Your task to perform on an android device: open a bookmark in the chrome app Image 0: 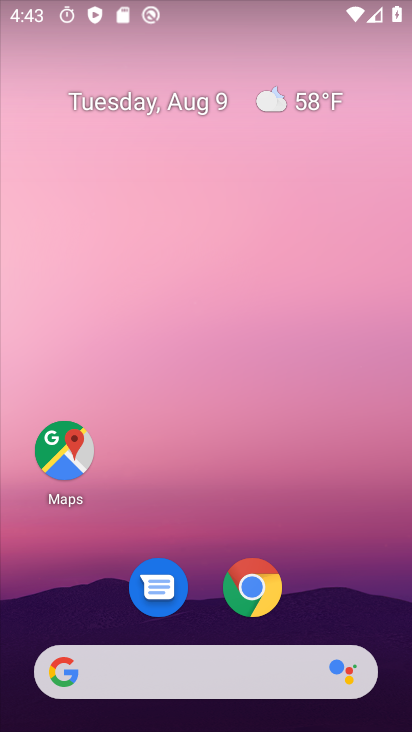
Step 0: click (263, 606)
Your task to perform on an android device: open a bookmark in the chrome app Image 1: 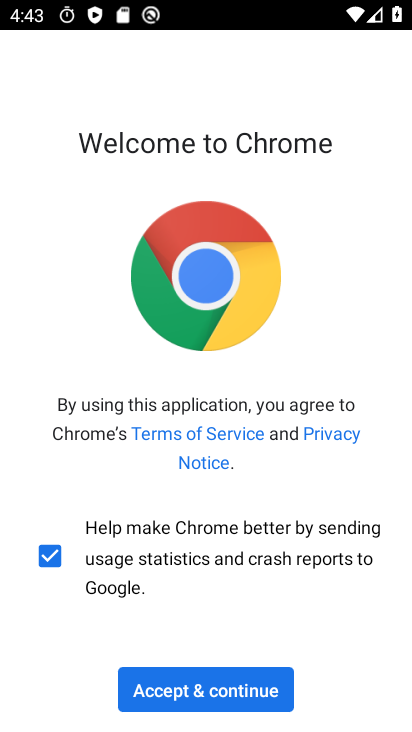
Step 1: click (172, 698)
Your task to perform on an android device: open a bookmark in the chrome app Image 2: 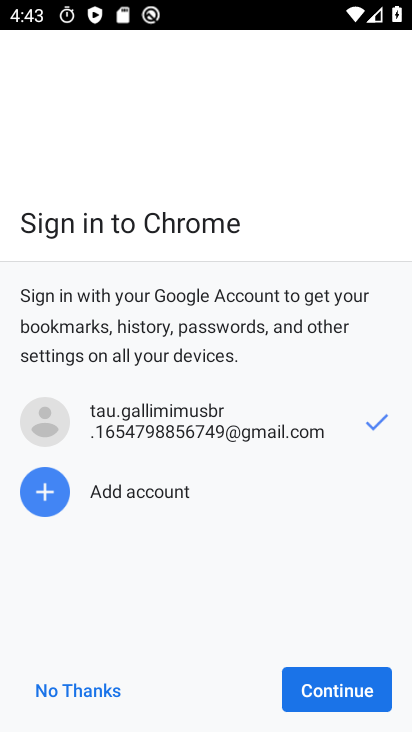
Step 2: click (340, 700)
Your task to perform on an android device: open a bookmark in the chrome app Image 3: 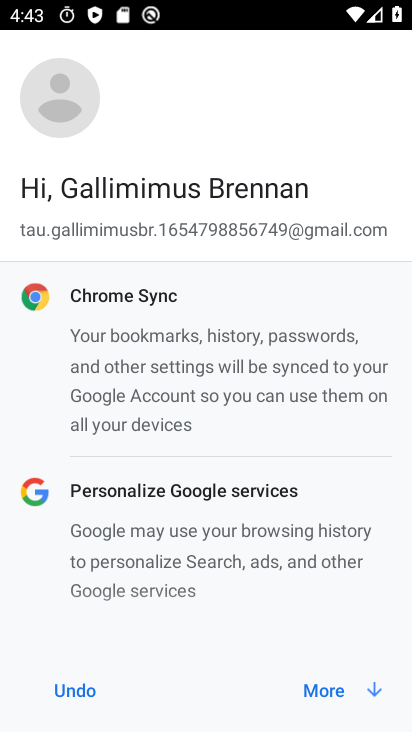
Step 3: click (346, 690)
Your task to perform on an android device: open a bookmark in the chrome app Image 4: 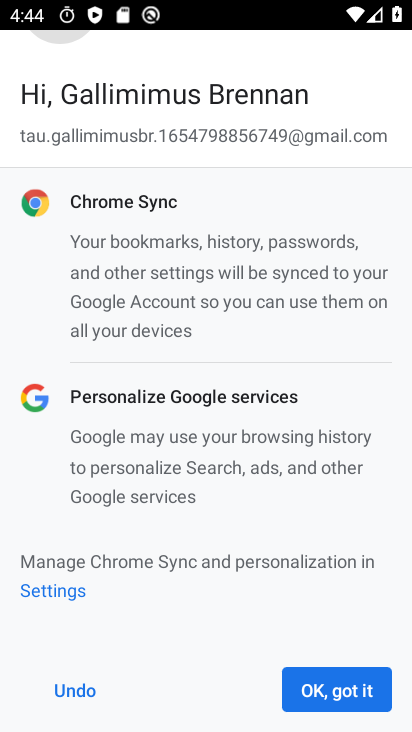
Step 4: click (346, 690)
Your task to perform on an android device: open a bookmark in the chrome app Image 5: 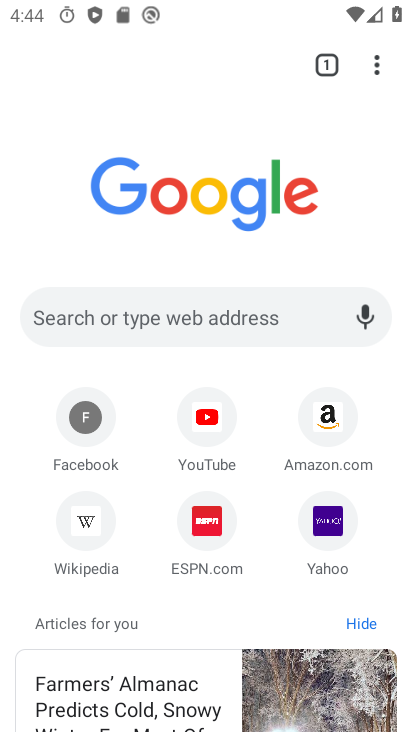
Step 5: drag from (372, 57) to (247, 257)
Your task to perform on an android device: open a bookmark in the chrome app Image 6: 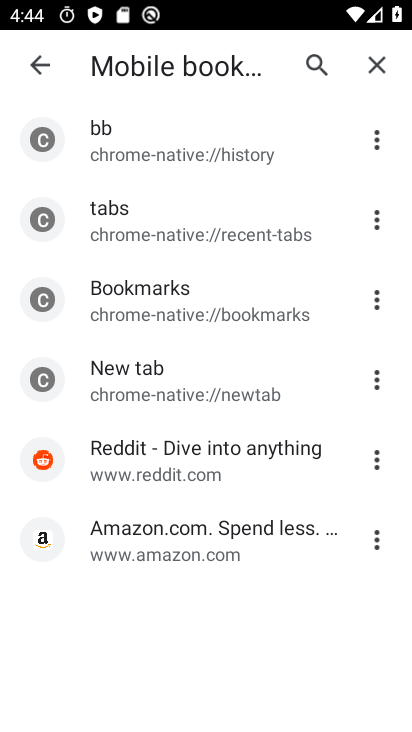
Step 6: click (155, 471)
Your task to perform on an android device: open a bookmark in the chrome app Image 7: 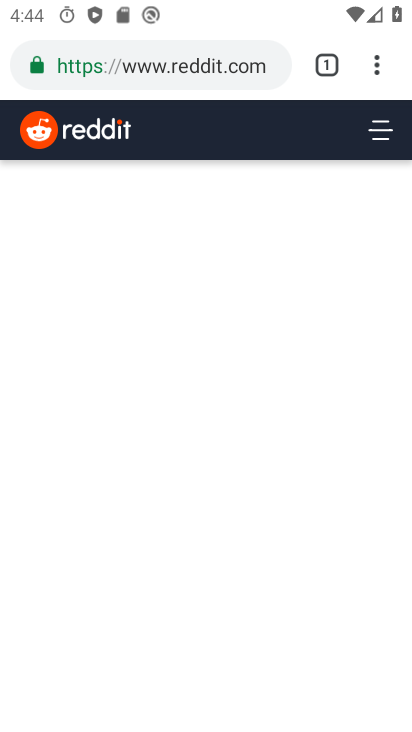
Step 7: task complete